Your task to perform on an android device: uninstall "Truecaller" Image 0: 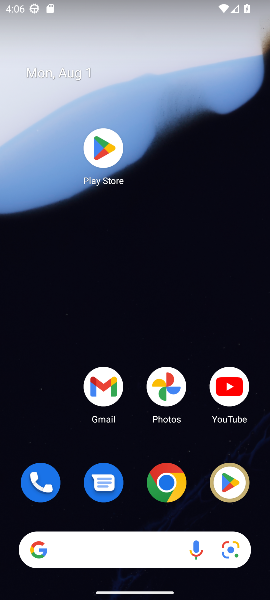
Step 0: click (104, 144)
Your task to perform on an android device: uninstall "Truecaller" Image 1: 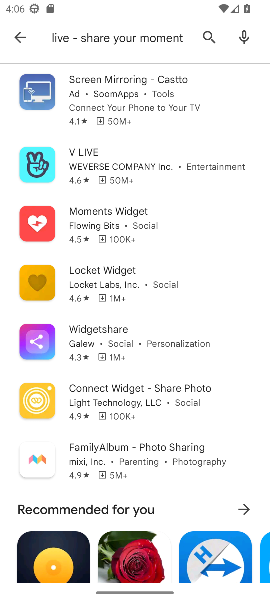
Step 1: click (205, 31)
Your task to perform on an android device: uninstall "Truecaller" Image 2: 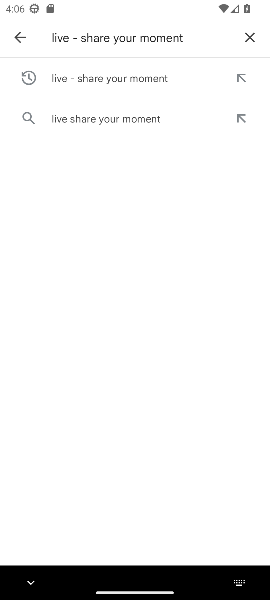
Step 2: click (249, 33)
Your task to perform on an android device: uninstall "Truecaller" Image 3: 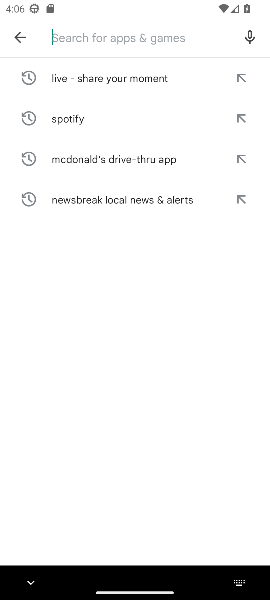
Step 3: type "Truecaller"
Your task to perform on an android device: uninstall "Truecaller" Image 4: 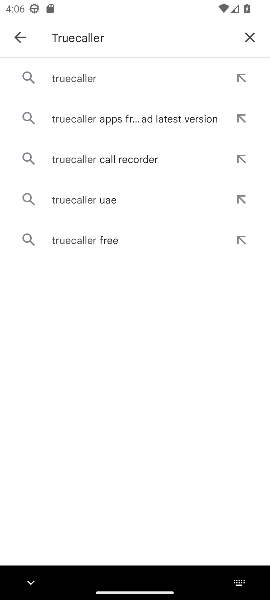
Step 4: click (79, 76)
Your task to perform on an android device: uninstall "Truecaller" Image 5: 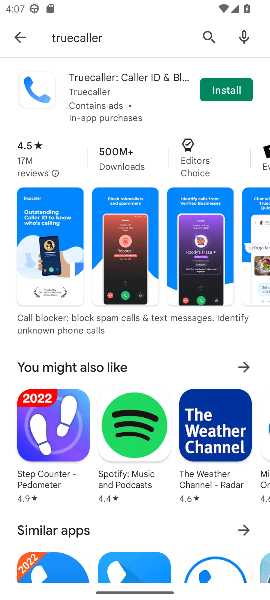
Step 5: task complete